Your task to perform on an android device: Do I have any events tomorrow? Image 0: 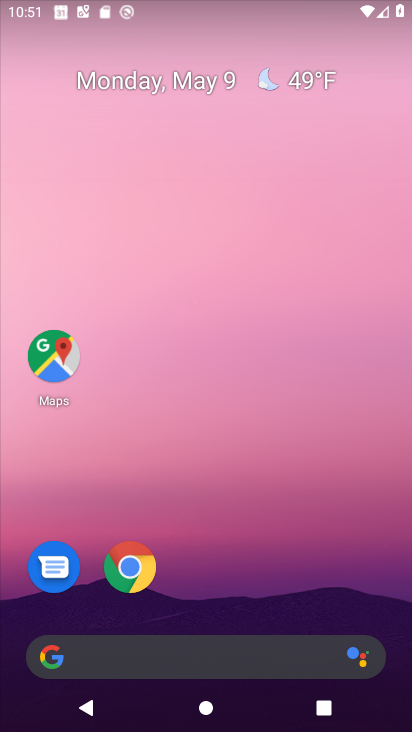
Step 0: drag from (172, 625) to (194, 221)
Your task to perform on an android device: Do I have any events tomorrow? Image 1: 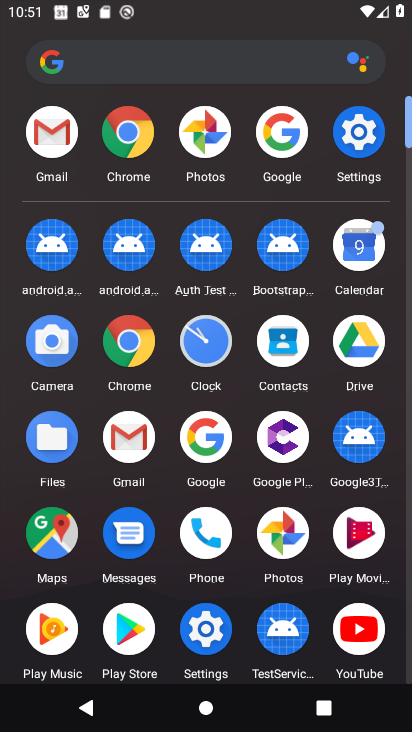
Step 1: click (353, 254)
Your task to perform on an android device: Do I have any events tomorrow? Image 2: 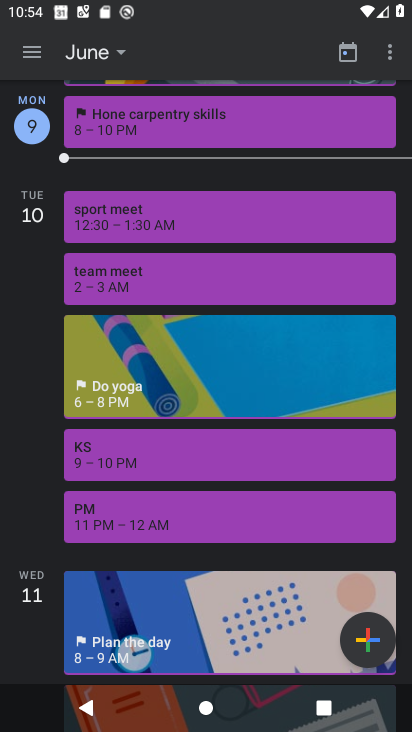
Step 2: task complete